Your task to perform on an android device: Empty the shopping cart on walmart. Search for asus zenbook on walmart, select the first entry, and add it to the cart. Image 0: 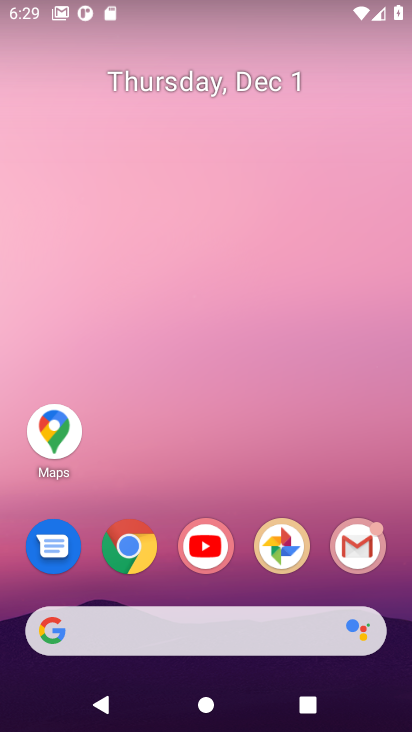
Step 0: click (127, 552)
Your task to perform on an android device: Empty the shopping cart on walmart. Search for asus zenbook on walmart, select the first entry, and add it to the cart. Image 1: 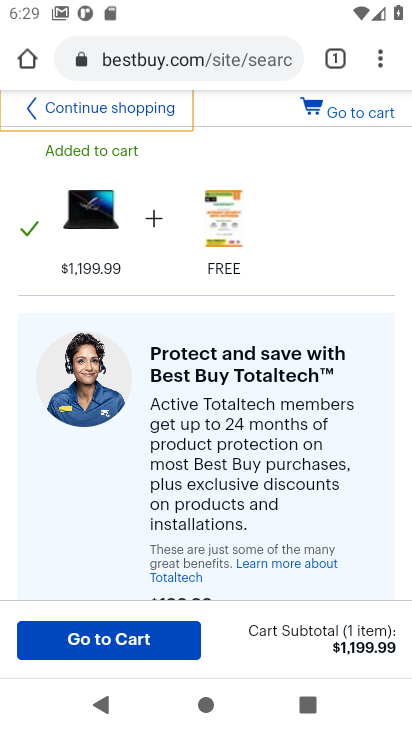
Step 1: click (161, 57)
Your task to perform on an android device: Empty the shopping cart on walmart. Search for asus zenbook on walmart, select the first entry, and add it to the cart. Image 2: 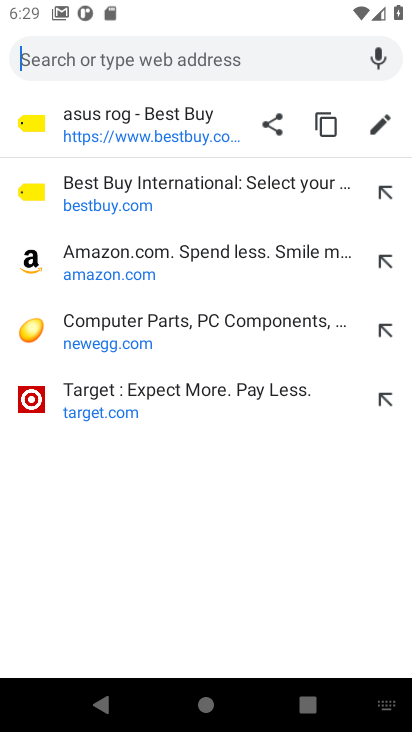
Step 2: type "walmart.com"
Your task to perform on an android device: Empty the shopping cart on walmart. Search for asus zenbook on walmart, select the first entry, and add it to the cart. Image 3: 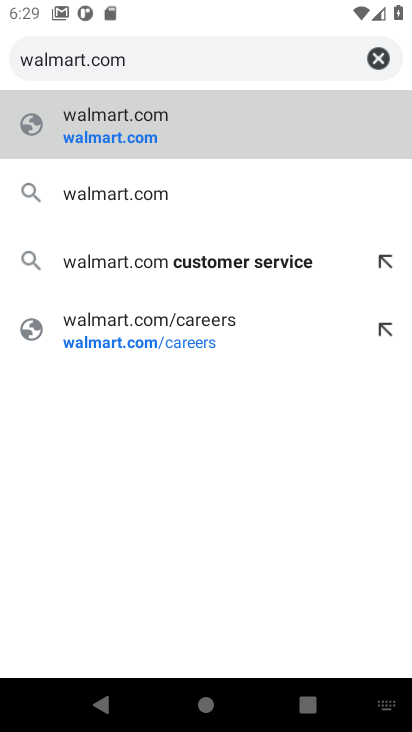
Step 3: click (106, 144)
Your task to perform on an android device: Empty the shopping cart on walmart. Search for asus zenbook on walmart, select the first entry, and add it to the cart. Image 4: 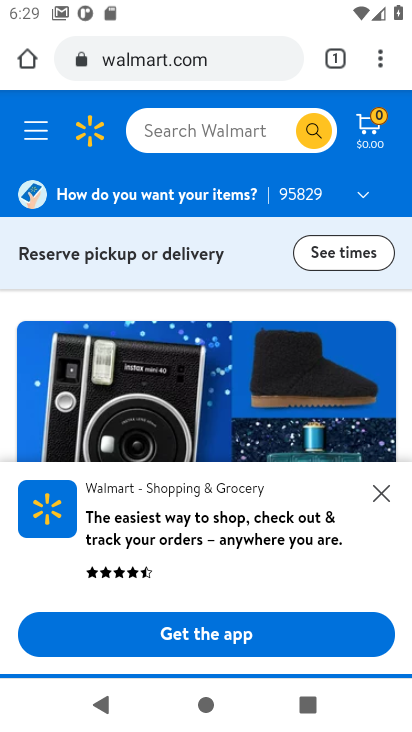
Step 4: click (363, 129)
Your task to perform on an android device: Empty the shopping cart on walmart. Search for asus zenbook on walmart, select the first entry, and add it to the cart. Image 5: 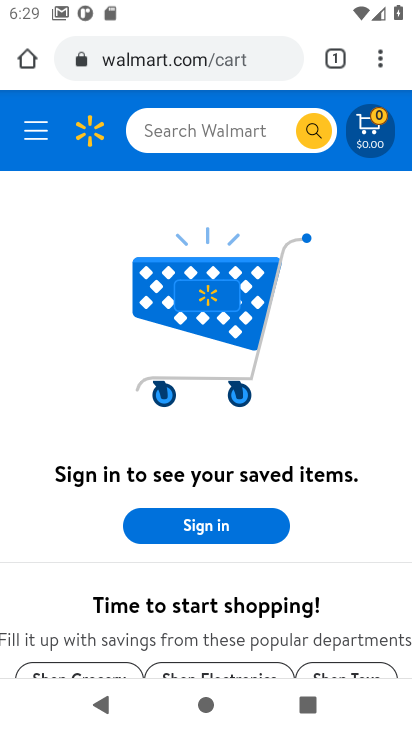
Step 5: click (154, 129)
Your task to perform on an android device: Empty the shopping cart on walmart. Search for asus zenbook on walmart, select the first entry, and add it to the cart. Image 6: 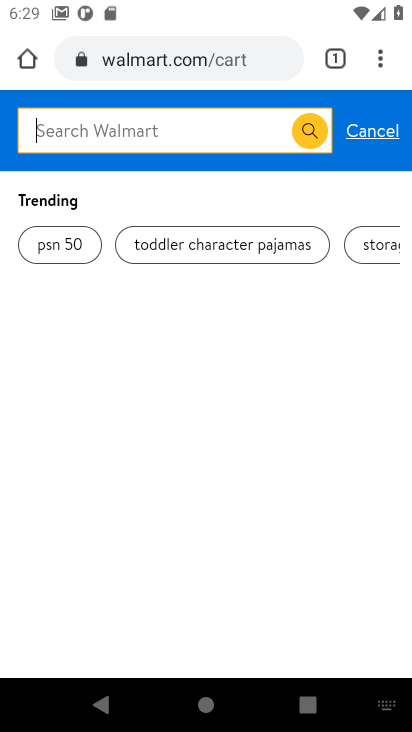
Step 6: type "asus zenbook"
Your task to perform on an android device: Empty the shopping cart on walmart. Search for asus zenbook on walmart, select the first entry, and add it to the cart. Image 7: 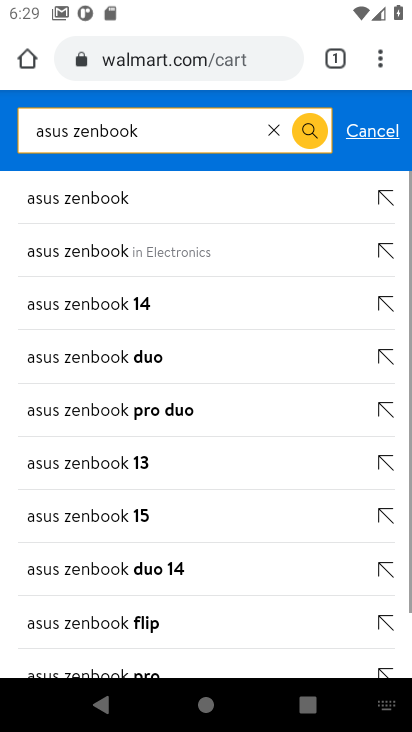
Step 7: click (75, 199)
Your task to perform on an android device: Empty the shopping cart on walmart. Search for asus zenbook on walmart, select the first entry, and add it to the cart. Image 8: 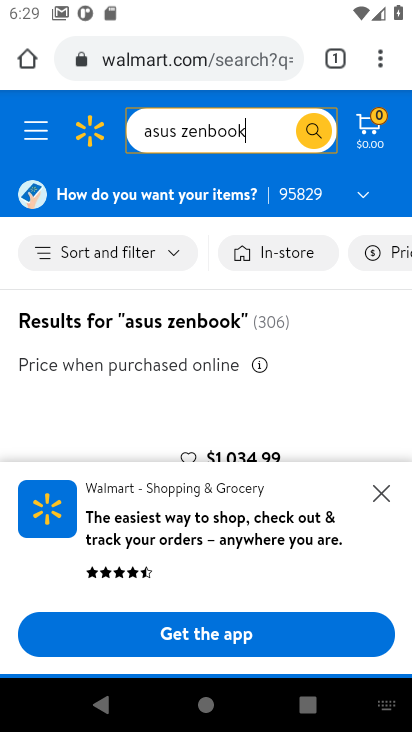
Step 8: drag from (153, 439) to (132, 195)
Your task to perform on an android device: Empty the shopping cart on walmart. Search for asus zenbook on walmart, select the first entry, and add it to the cart. Image 9: 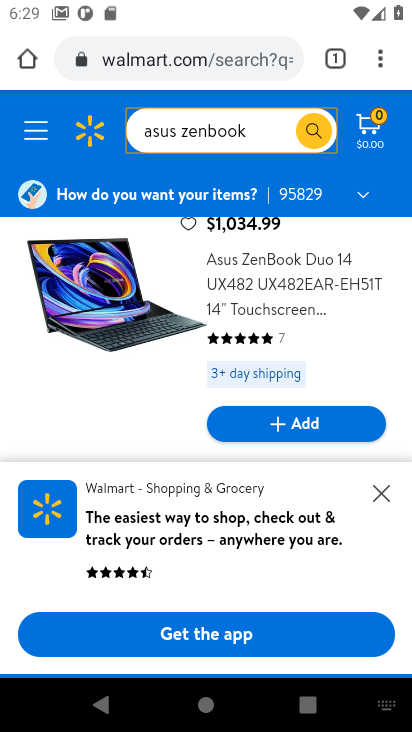
Step 9: click (303, 427)
Your task to perform on an android device: Empty the shopping cart on walmart. Search for asus zenbook on walmart, select the first entry, and add it to the cart. Image 10: 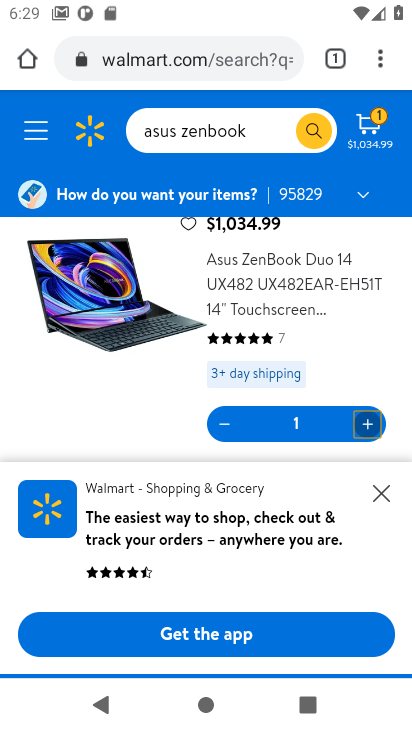
Step 10: task complete